Your task to perform on an android device: Open internet settings Image 0: 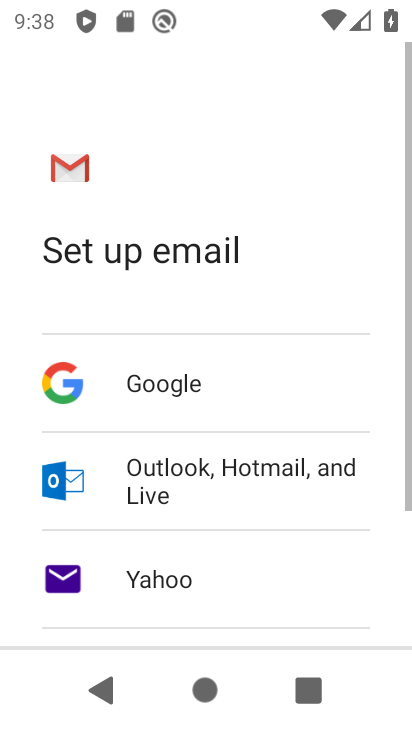
Step 0: press home button
Your task to perform on an android device: Open internet settings Image 1: 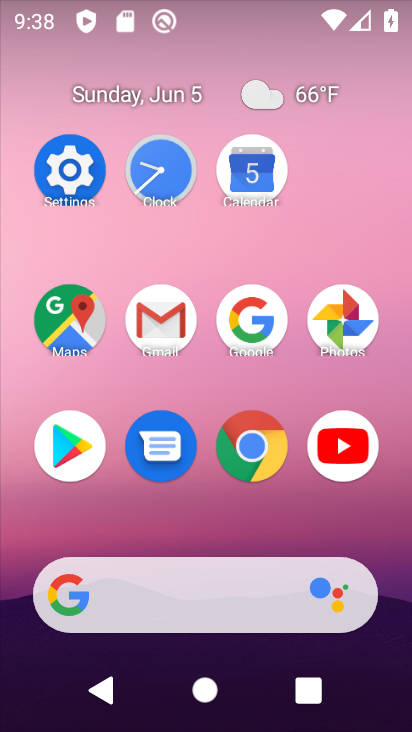
Step 1: click (49, 175)
Your task to perform on an android device: Open internet settings Image 2: 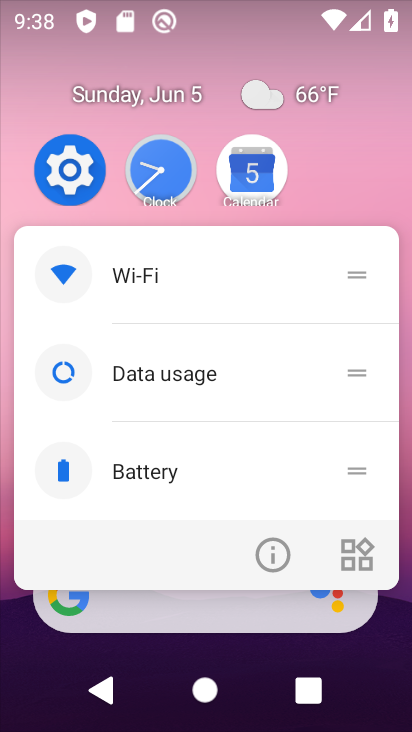
Step 2: click (49, 175)
Your task to perform on an android device: Open internet settings Image 3: 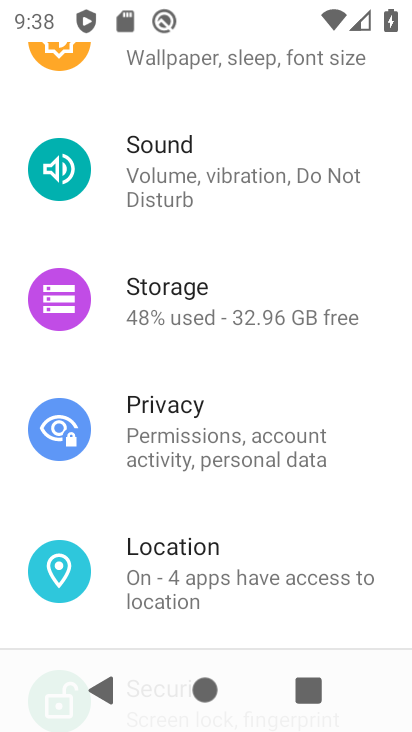
Step 3: drag from (297, 181) to (347, 552)
Your task to perform on an android device: Open internet settings Image 4: 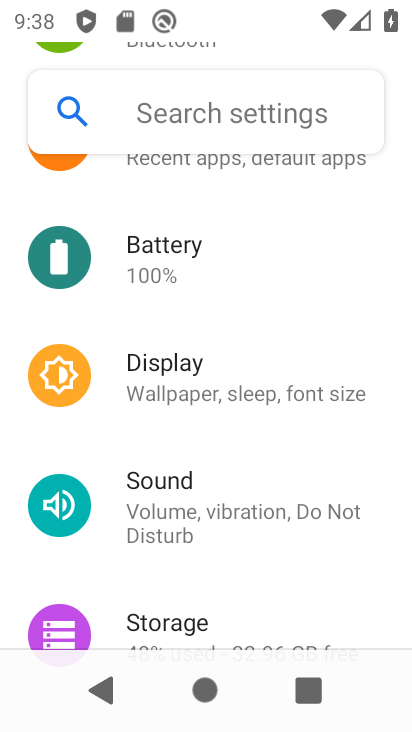
Step 4: drag from (275, 205) to (299, 511)
Your task to perform on an android device: Open internet settings Image 5: 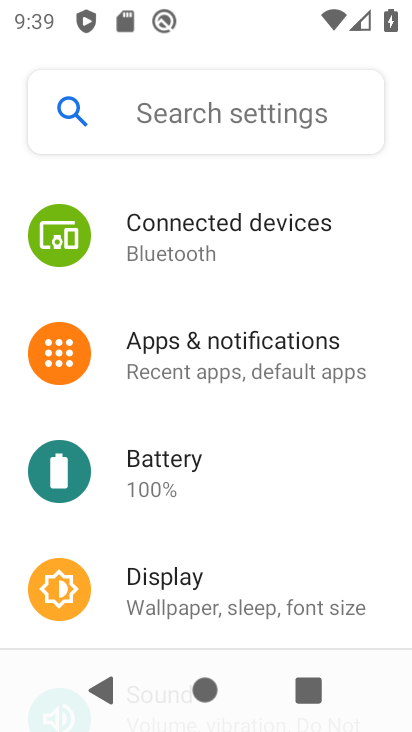
Step 5: drag from (283, 204) to (298, 471)
Your task to perform on an android device: Open internet settings Image 6: 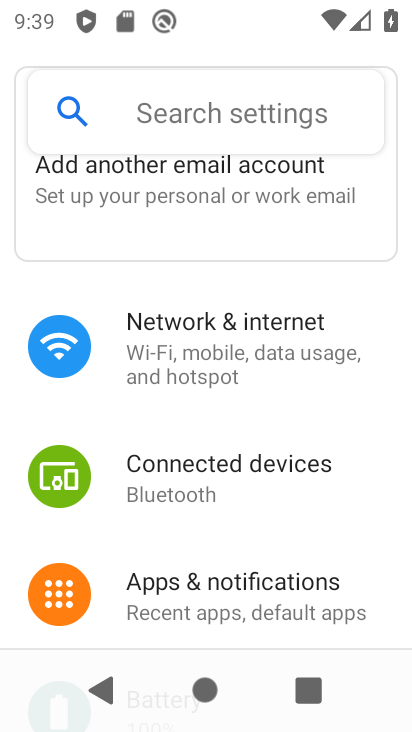
Step 6: click (243, 326)
Your task to perform on an android device: Open internet settings Image 7: 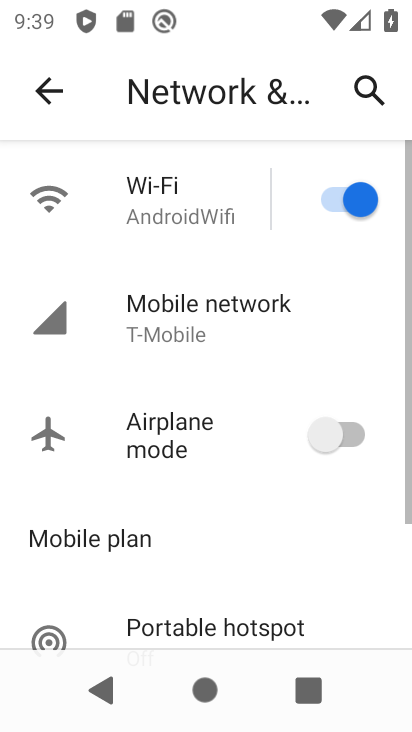
Step 7: task complete